Your task to perform on an android device: Go to Wikipedia Image 0: 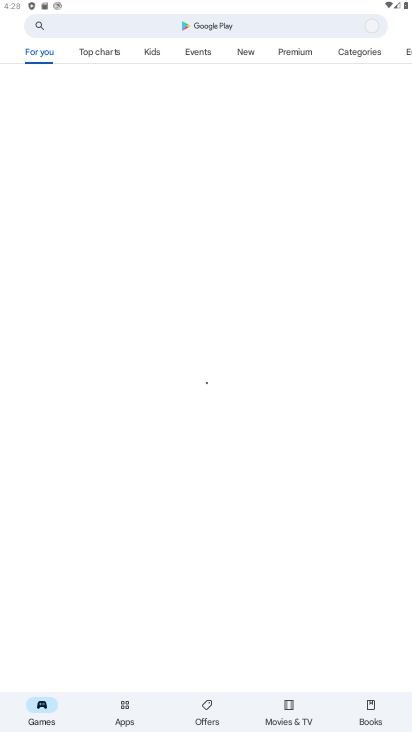
Step 0: press home button
Your task to perform on an android device: Go to Wikipedia Image 1: 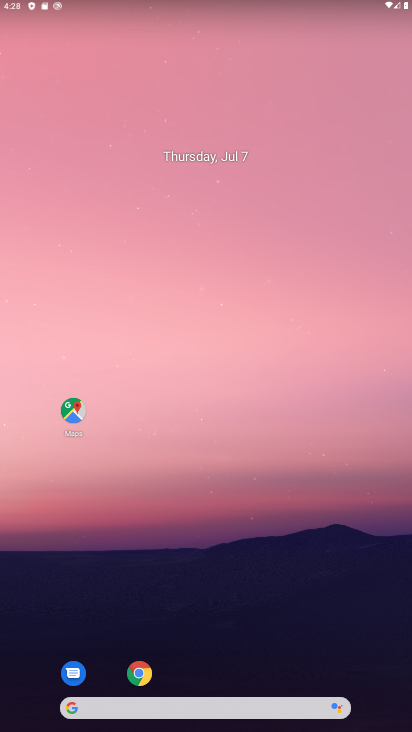
Step 1: drag from (284, 205) to (297, 170)
Your task to perform on an android device: Go to Wikipedia Image 2: 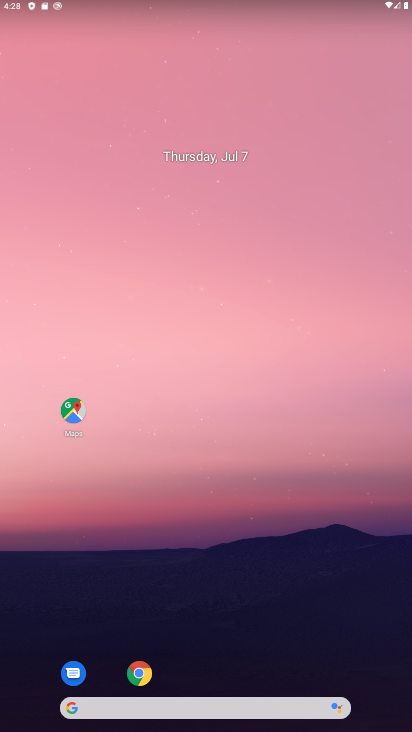
Step 2: drag from (239, 683) to (340, 129)
Your task to perform on an android device: Go to Wikipedia Image 3: 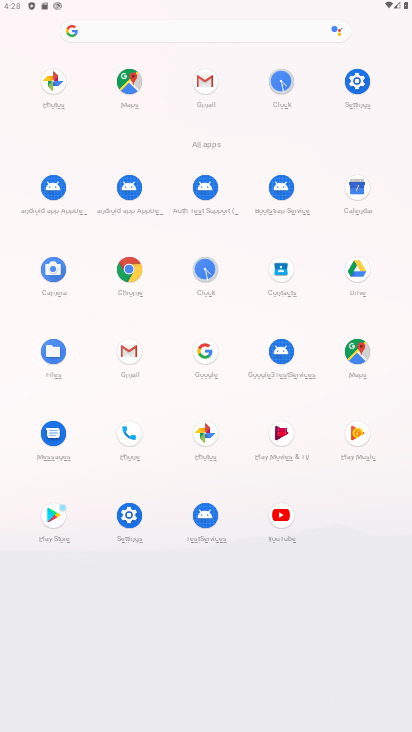
Step 3: click (133, 269)
Your task to perform on an android device: Go to Wikipedia Image 4: 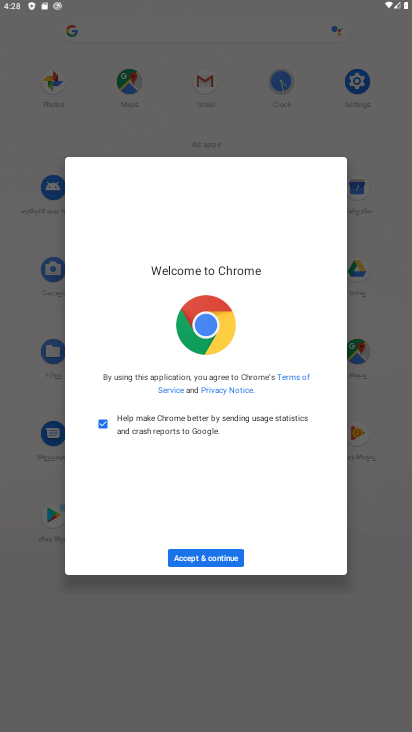
Step 4: click (230, 561)
Your task to perform on an android device: Go to Wikipedia Image 5: 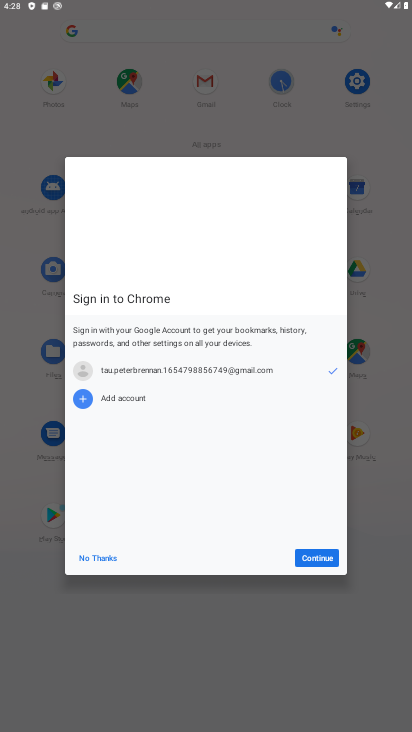
Step 5: click (308, 563)
Your task to perform on an android device: Go to Wikipedia Image 6: 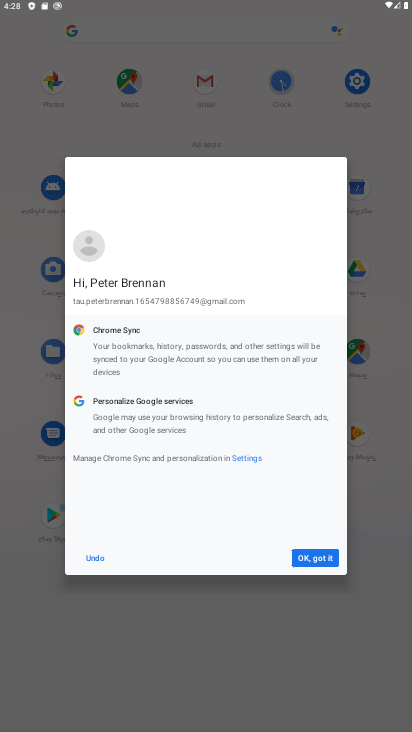
Step 6: click (308, 563)
Your task to perform on an android device: Go to Wikipedia Image 7: 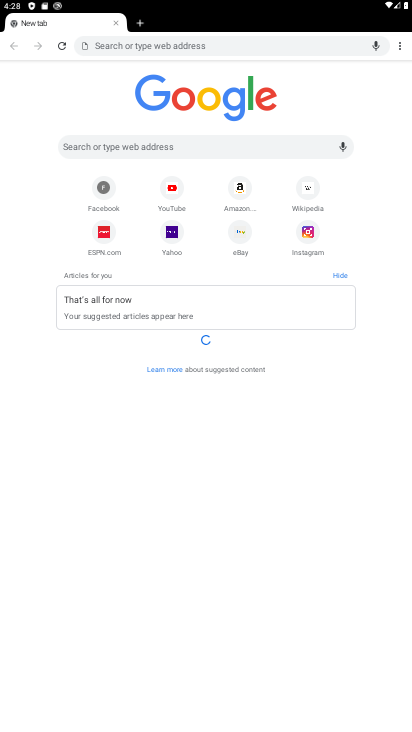
Step 7: click (311, 189)
Your task to perform on an android device: Go to Wikipedia Image 8: 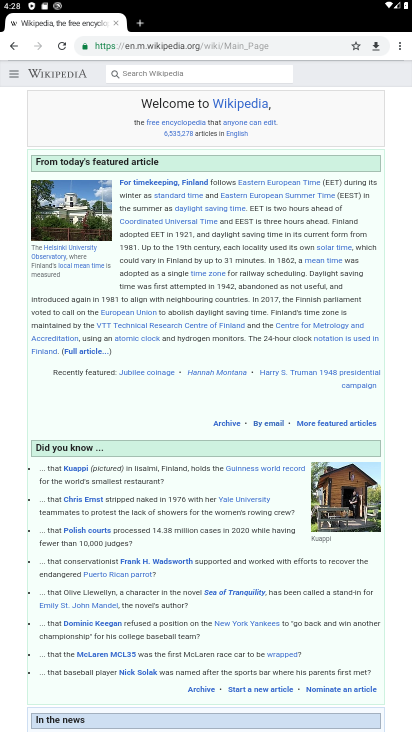
Step 8: task complete